Your task to perform on an android device: Go to Android settings Image 0: 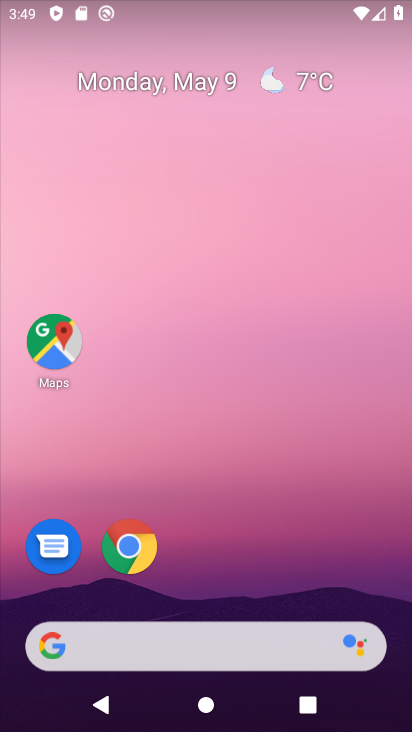
Step 0: drag from (209, 623) to (254, 320)
Your task to perform on an android device: Go to Android settings Image 1: 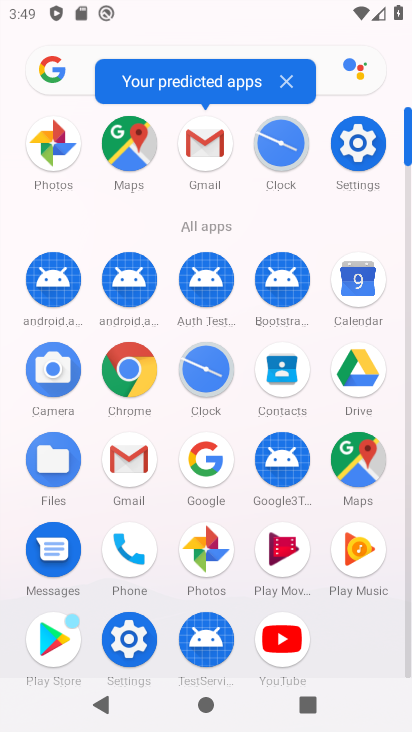
Step 1: click (132, 650)
Your task to perform on an android device: Go to Android settings Image 2: 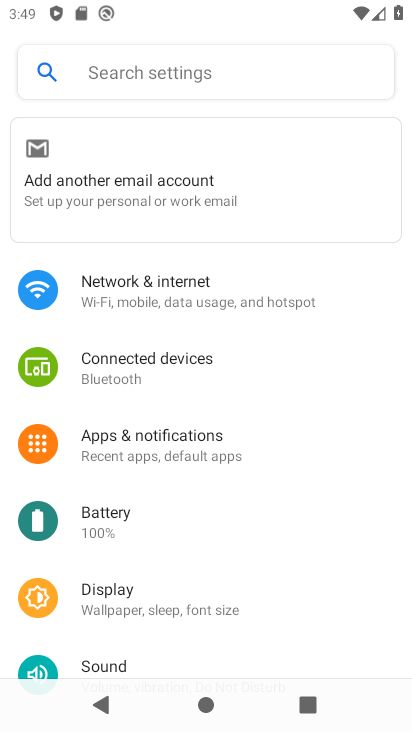
Step 2: task complete